Your task to perform on an android device: Open Google Image 0: 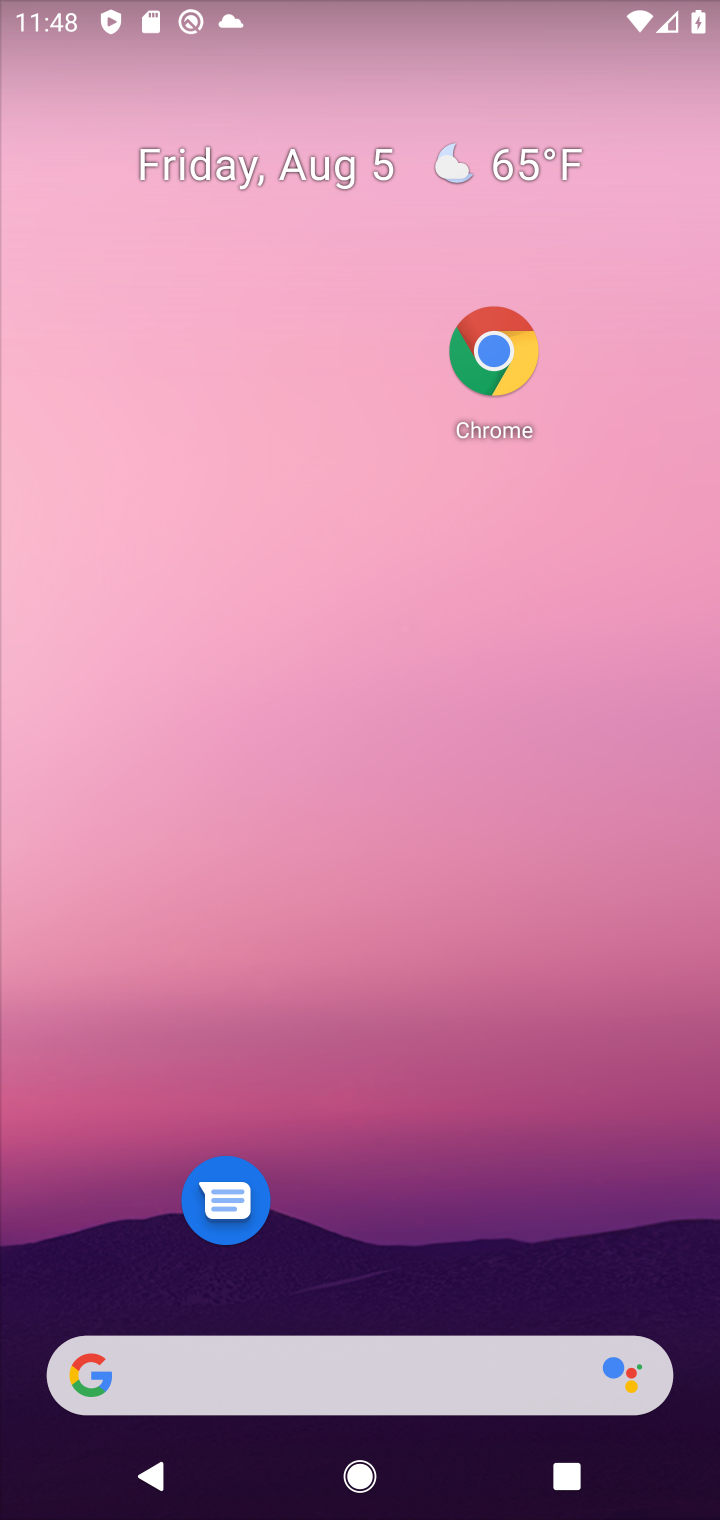
Step 0: drag from (419, 1310) to (613, 407)
Your task to perform on an android device: Open Google Image 1: 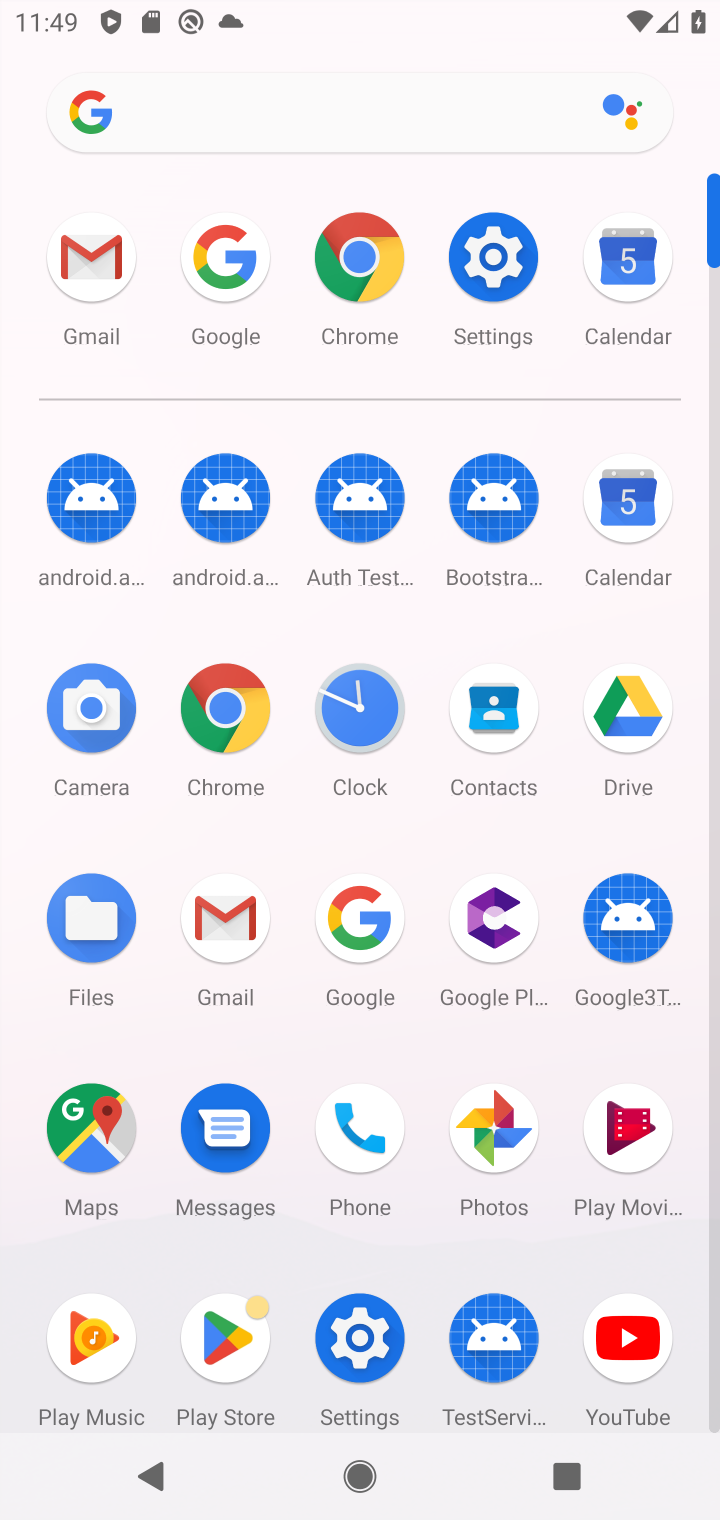
Step 1: click (355, 960)
Your task to perform on an android device: Open Google Image 2: 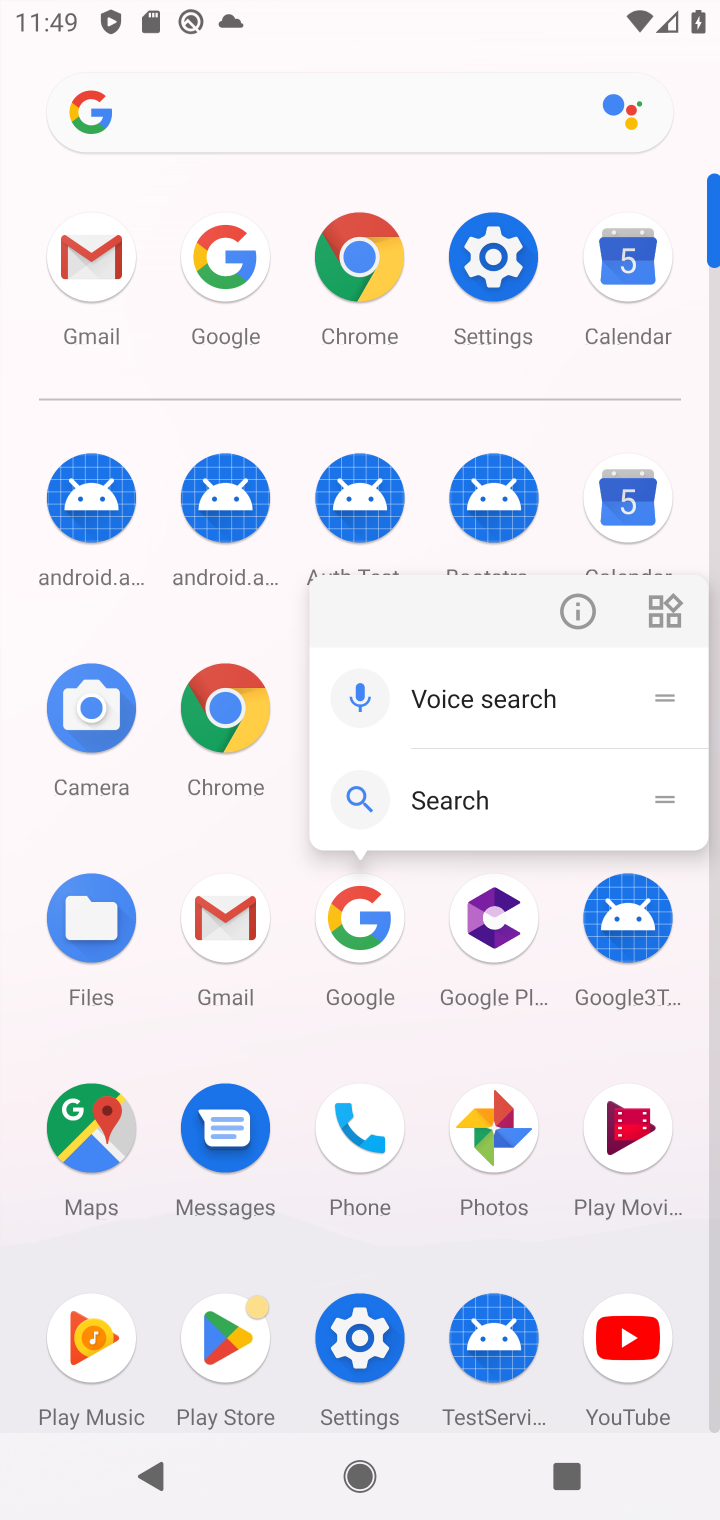
Step 2: click (485, 1164)
Your task to perform on an android device: Open Google Image 3: 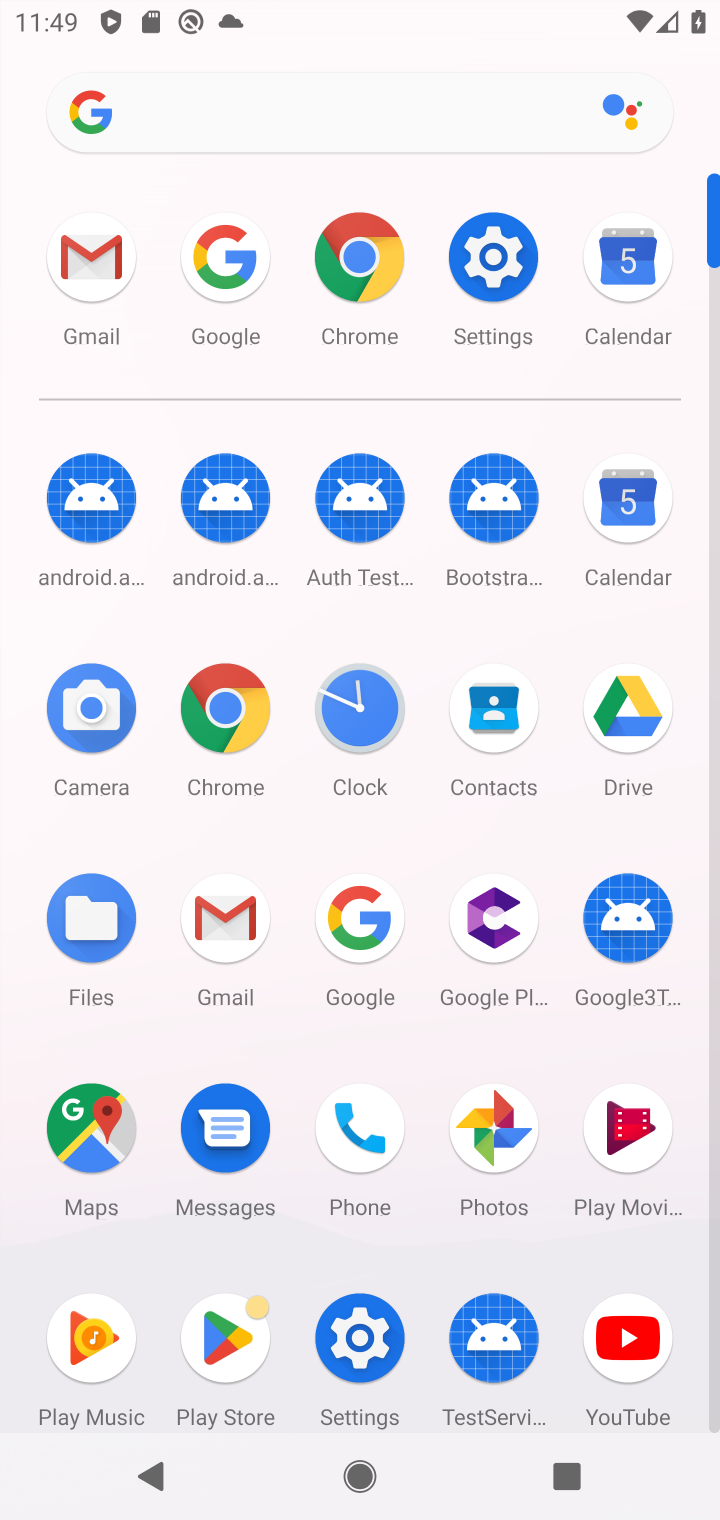
Step 3: click (367, 952)
Your task to perform on an android device: Open Google Image 4: 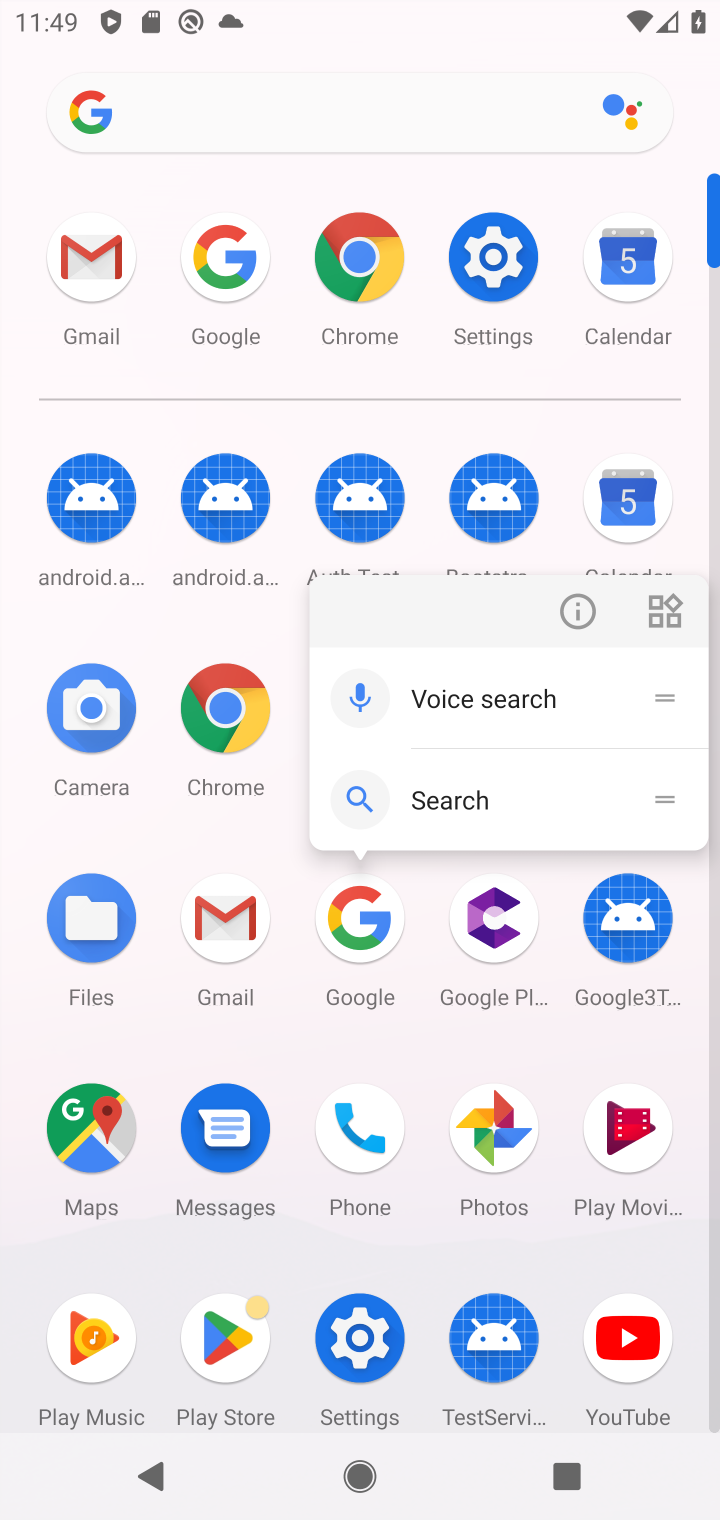
Step 4: click (357, 995)
Your task to perform on an android device: Open Google Image 5: 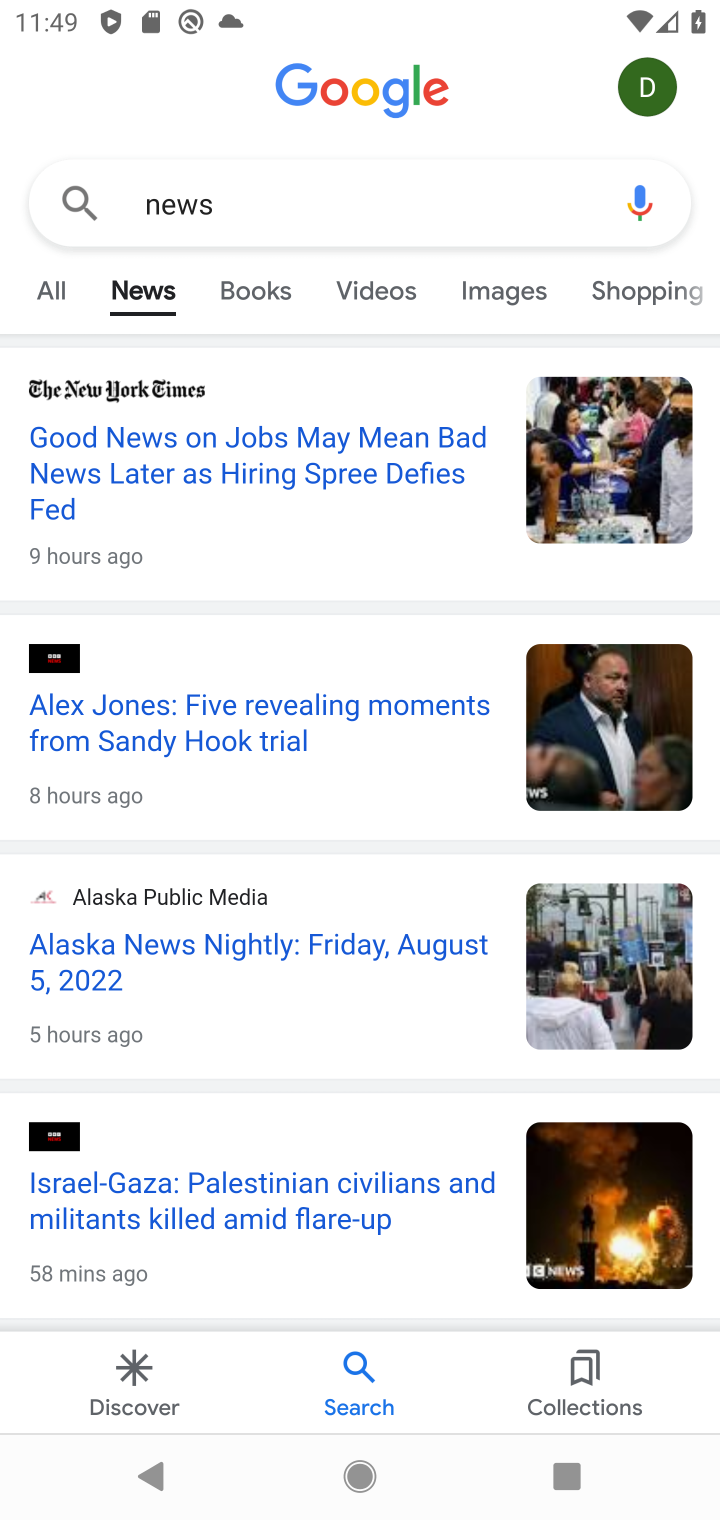
Step 5: task complete